Your task to perform on an android device: show emergency info Image 0: 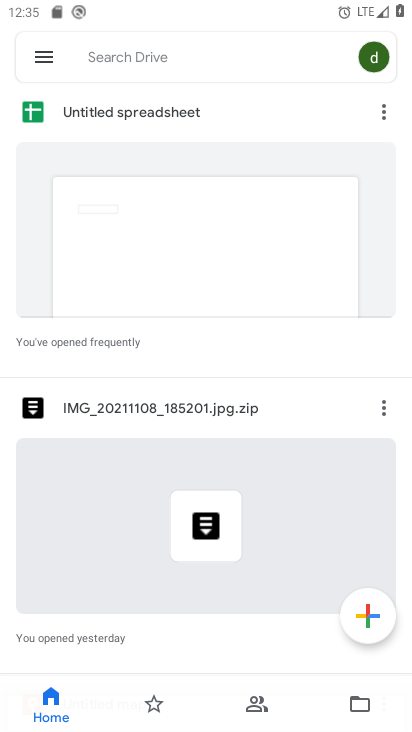
Step 0: press home button
Your task to perform on an android device: show emergency info Image 1: 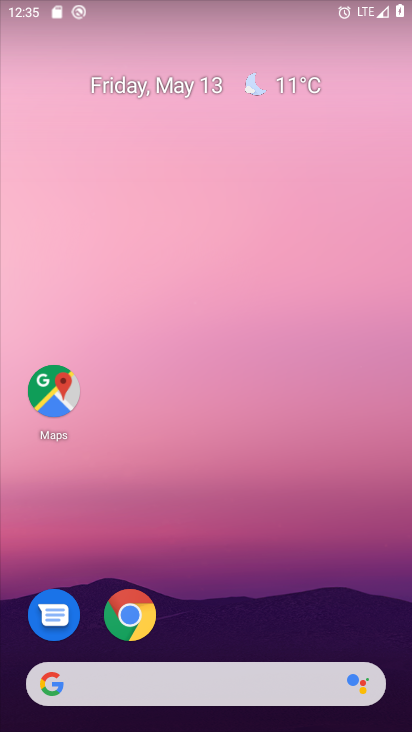
Step 1: drag from (218, 564) to (227, 43)
Your task to perform on an android device: show emergency info Image 2: 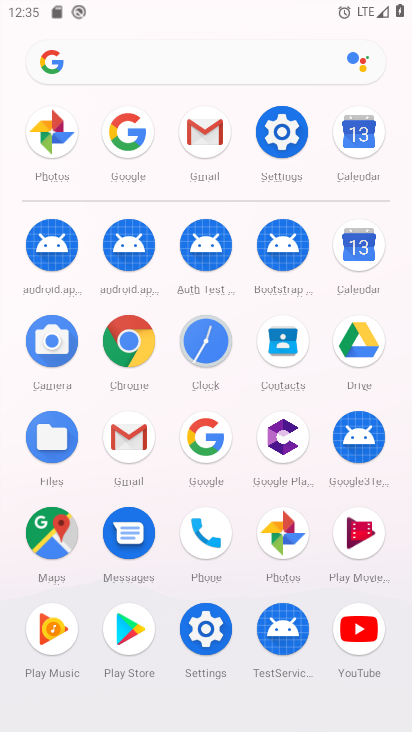
Step 2: click (278, 131)
Your task to perform on an android device: show emergency info Image 3: 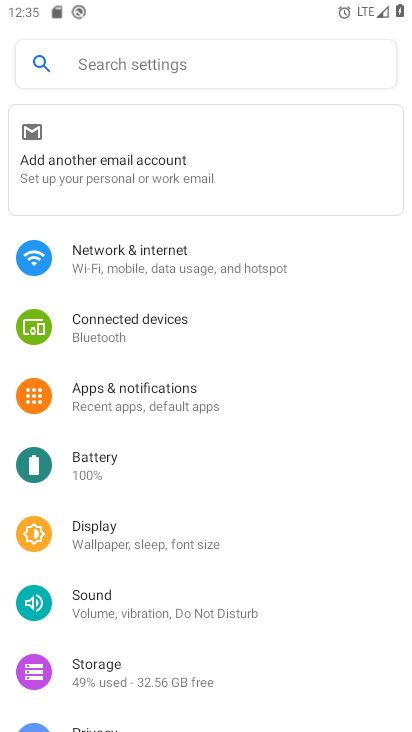
Step 3: drag from (209, 642) to (269, 53)
Your task to perform on an android device: show emergency info Image 4: 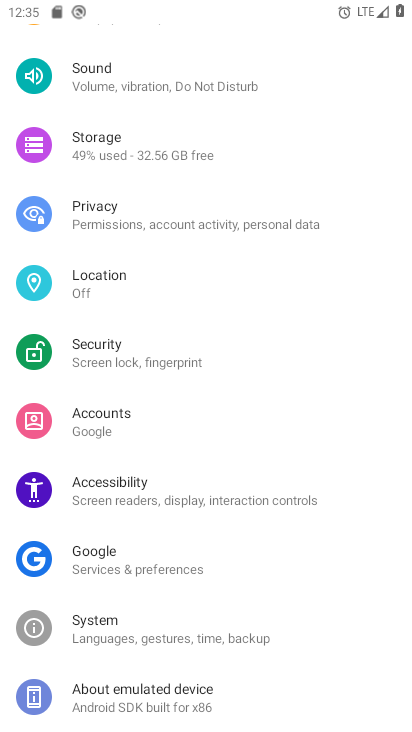
Step 4: click (185, 694)
Your task to perform on an android device: show emergency info Image 5: 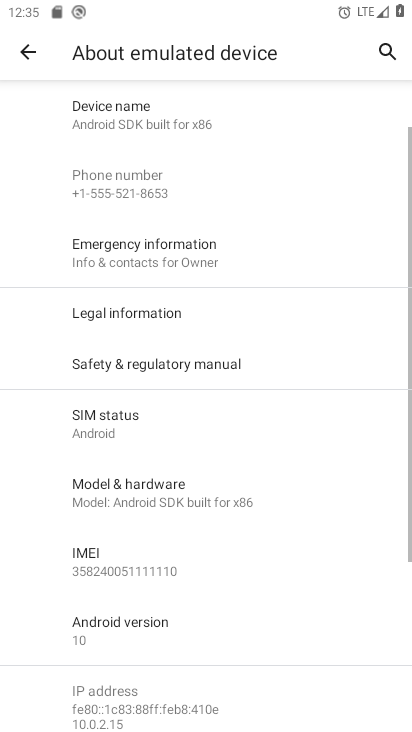
Step 5: click (200, 241)
Your task to perform on an android device: show emergency info Image 6: 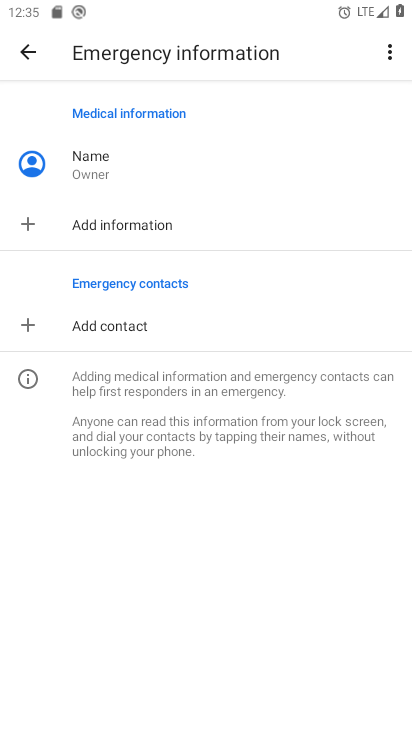
Step 6: task complete